Your task to perform on an android device: Empty the shopping cart on costco.com. Search for "alienware aurora" on costco.com, select the first entry, and add it to the cart. Image 0: 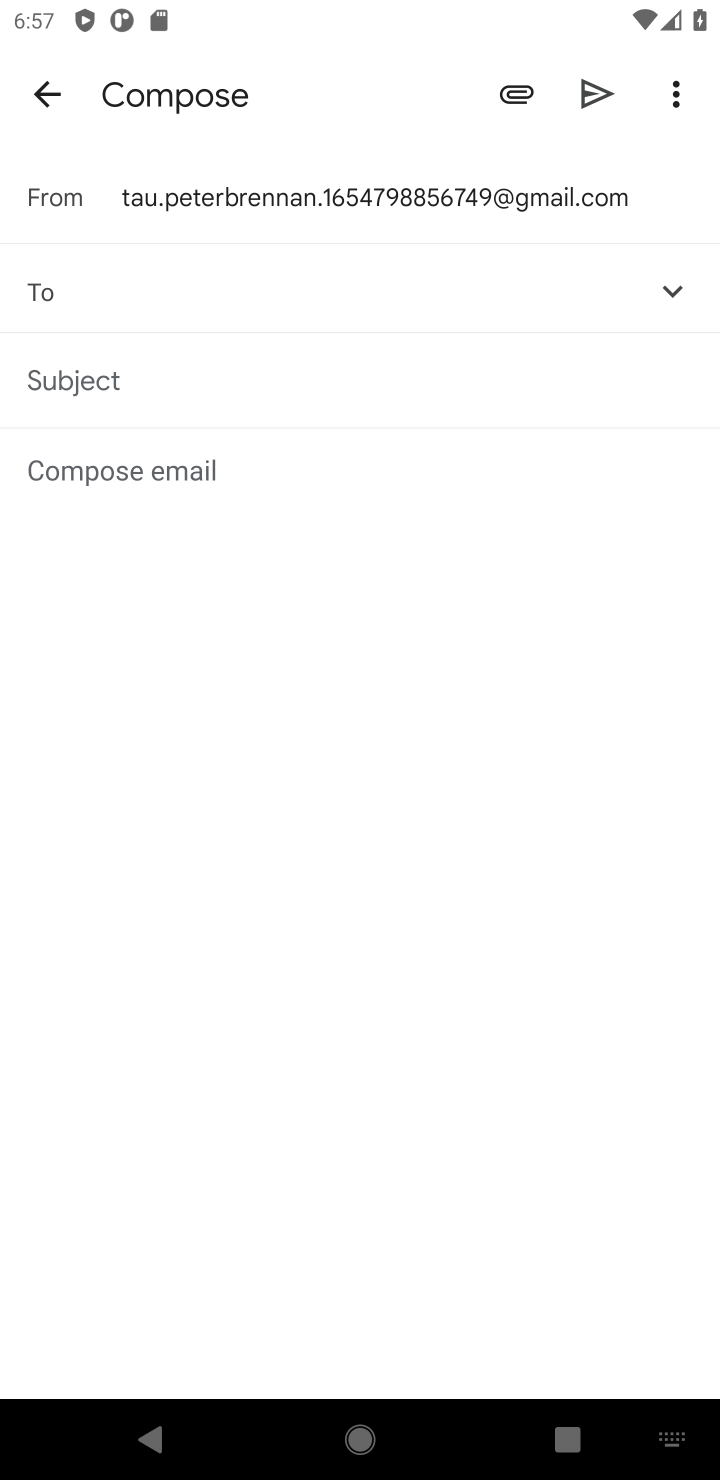
Step 0: press home button
Your task to perform on an android device: Empty the shopping cart on costco.com. Search for "alienware aurora" on costco.com, select the first entry, and add it to the cart. Image 1: 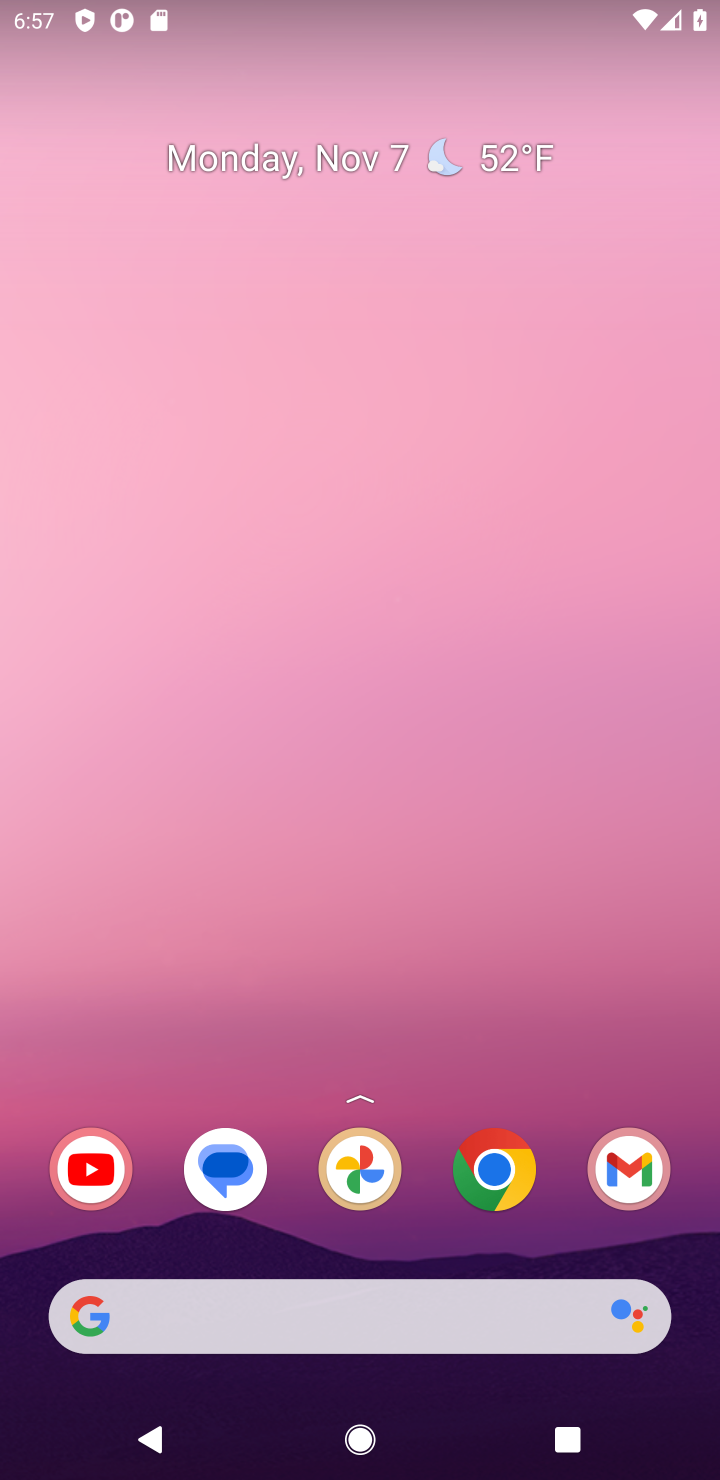
Step 1: click (488, 1154)
Your task to perform on an android device: Empty the shopping cart on costco.com. Search for "alienware aurora" on costco.com, select the first entry, and add it to the cart. Image 2: 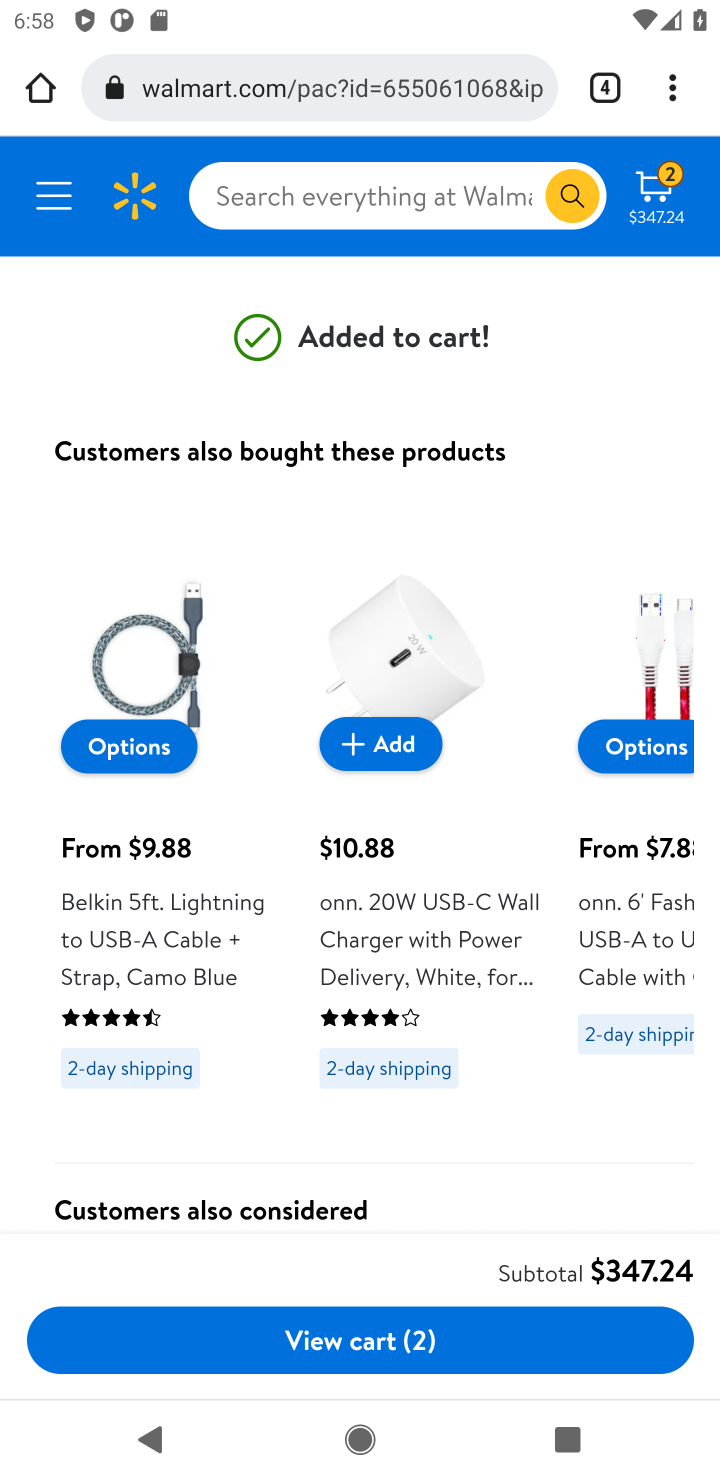
Step 2: click (611, 84)
Your task to perform on an android device: Empty the shopping cart on costco.com. Search for "alienware aurora" on costco.com, select the first entry, and add it to the cart. Image 3: 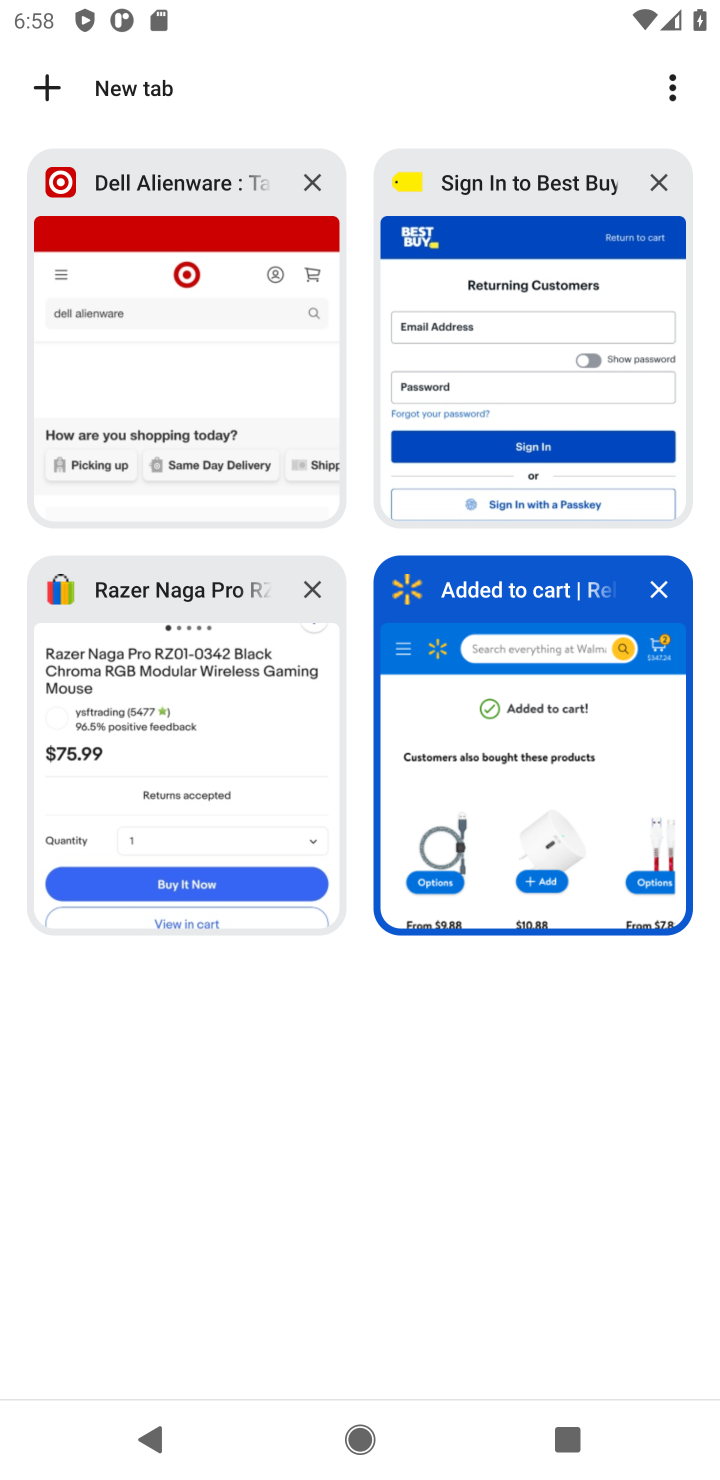
Step 3: click (42, 91)
Your task to perform on an android device: Empty the shopping cart on costco.com. Search for "alienware aurora" on costco.com, select the first entry, and add it to the cart. Image 4: 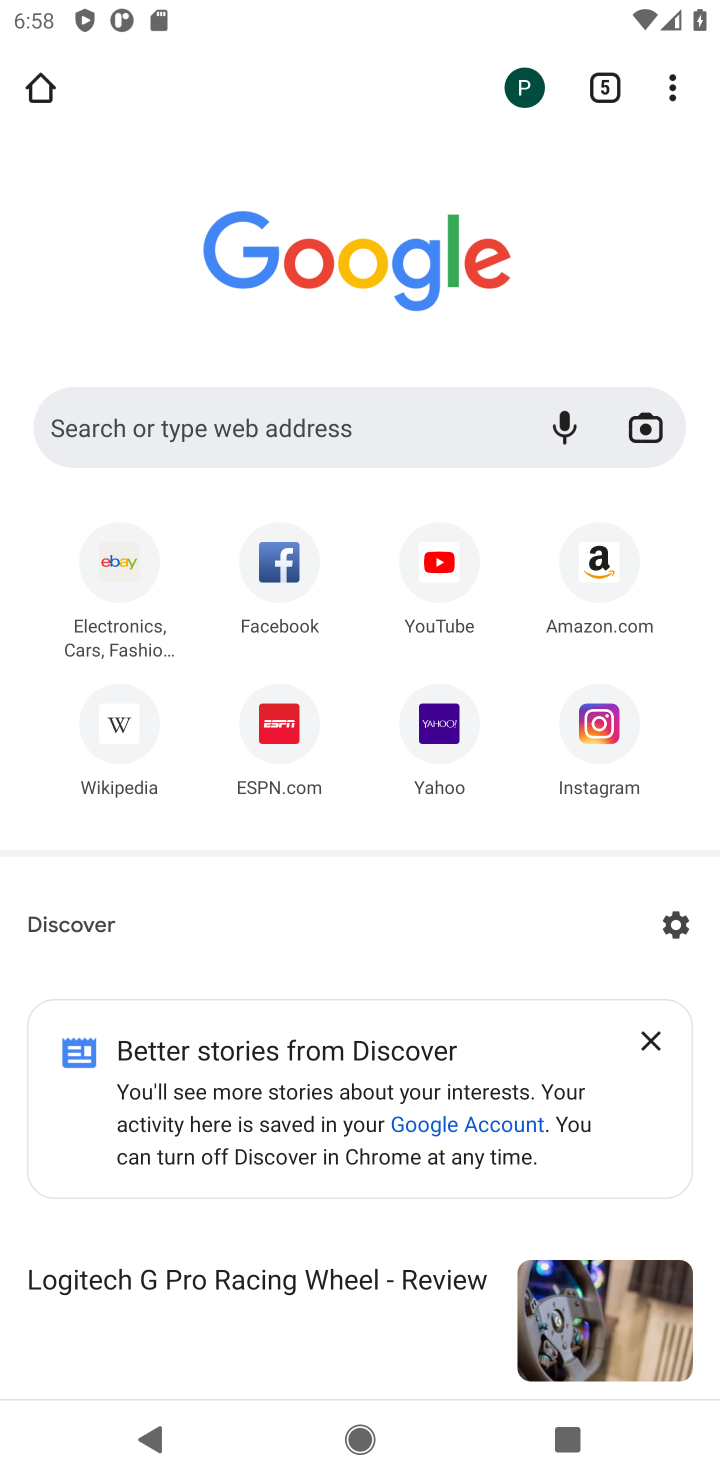
Step 4: click (321, 415)
Your task to perform on an android device: Empty the shopping cart on costco.com. Search for "alienware aurora" on costco.com, select the first entry, and add it to the cart. Image 5: 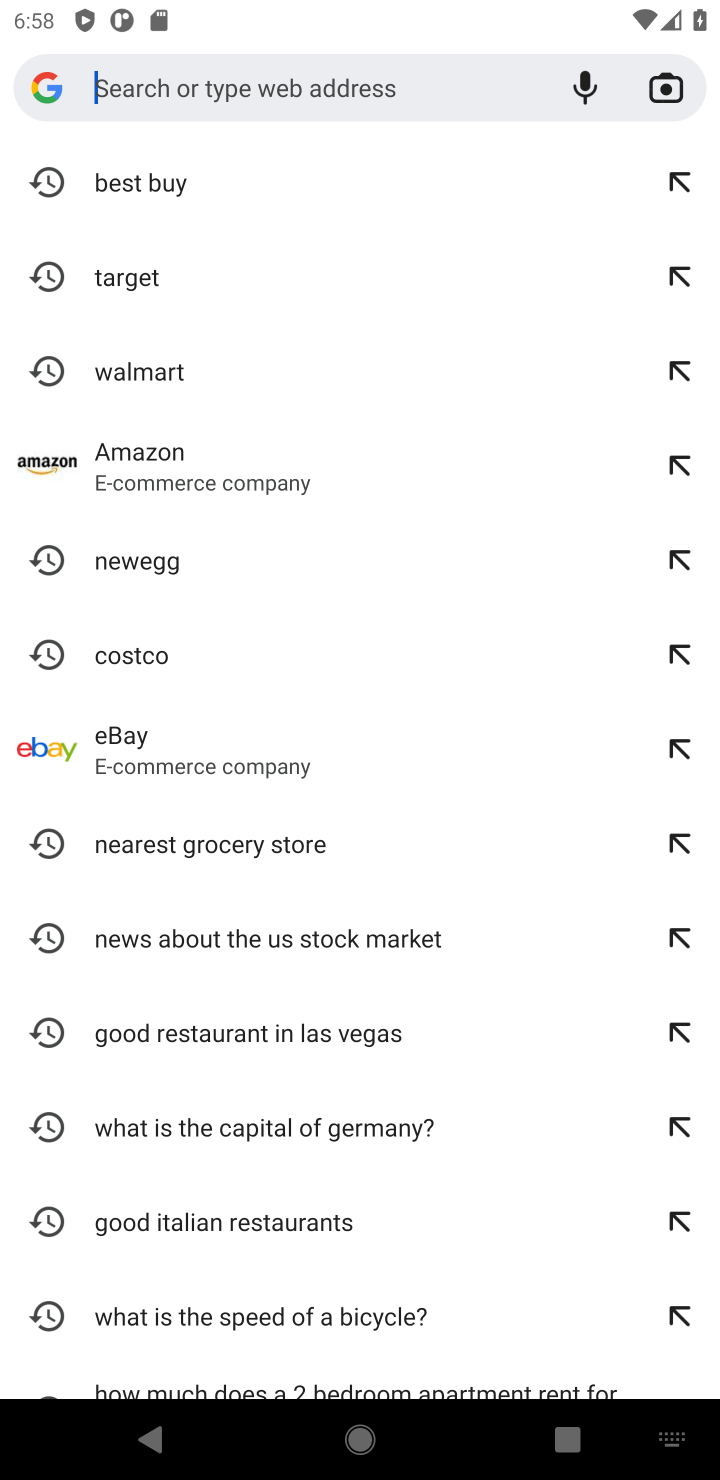
Step 5: click (129, 659)
Your task to perform on an android device: Empty the shopping cart on costco.com. Search for "alienware aurora" on costco.com, select the first entry, and add it to the cart. Image 6: 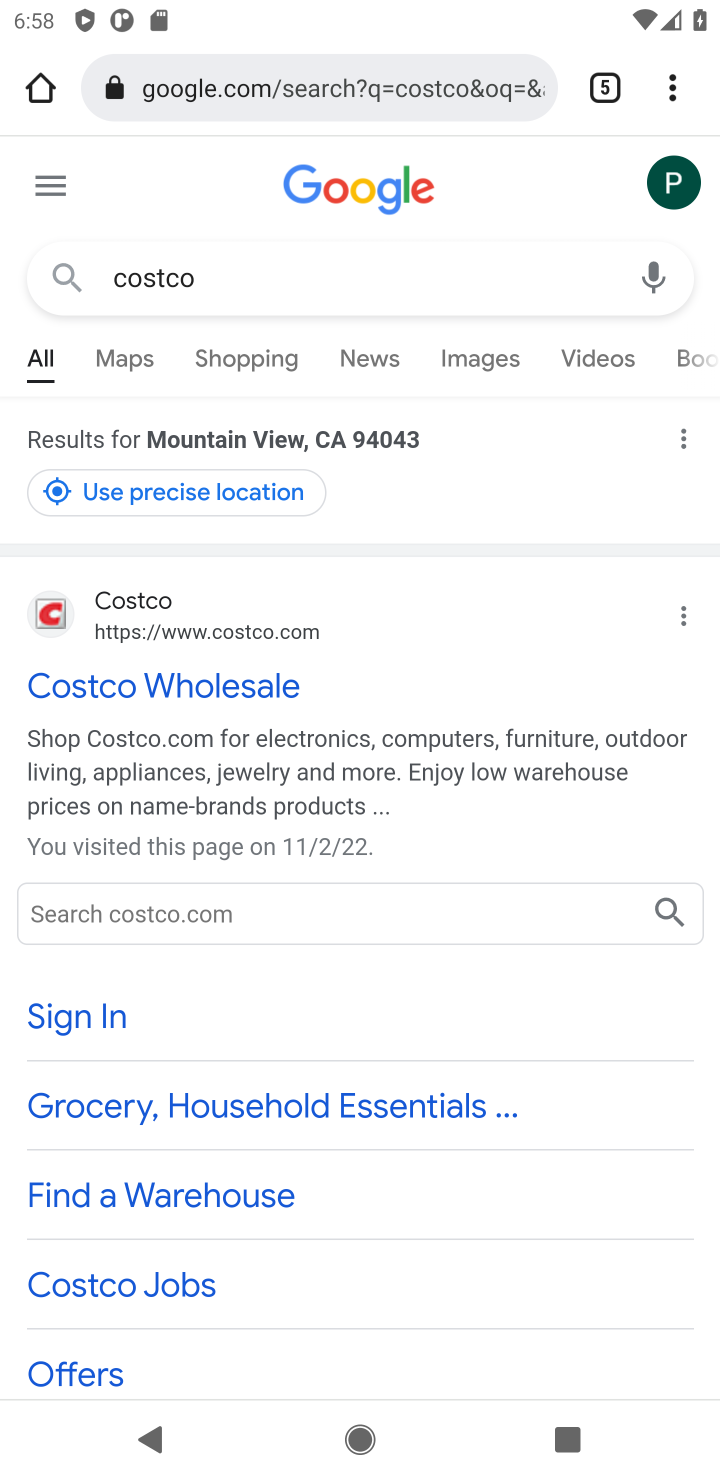
Step 6: click (144, 908)
Your task to perform on an android device: Empty the shopping cart on costco.com. Search for "alienware aurora" on costco.com, select the first entry, and add it to the cart. Image 7: 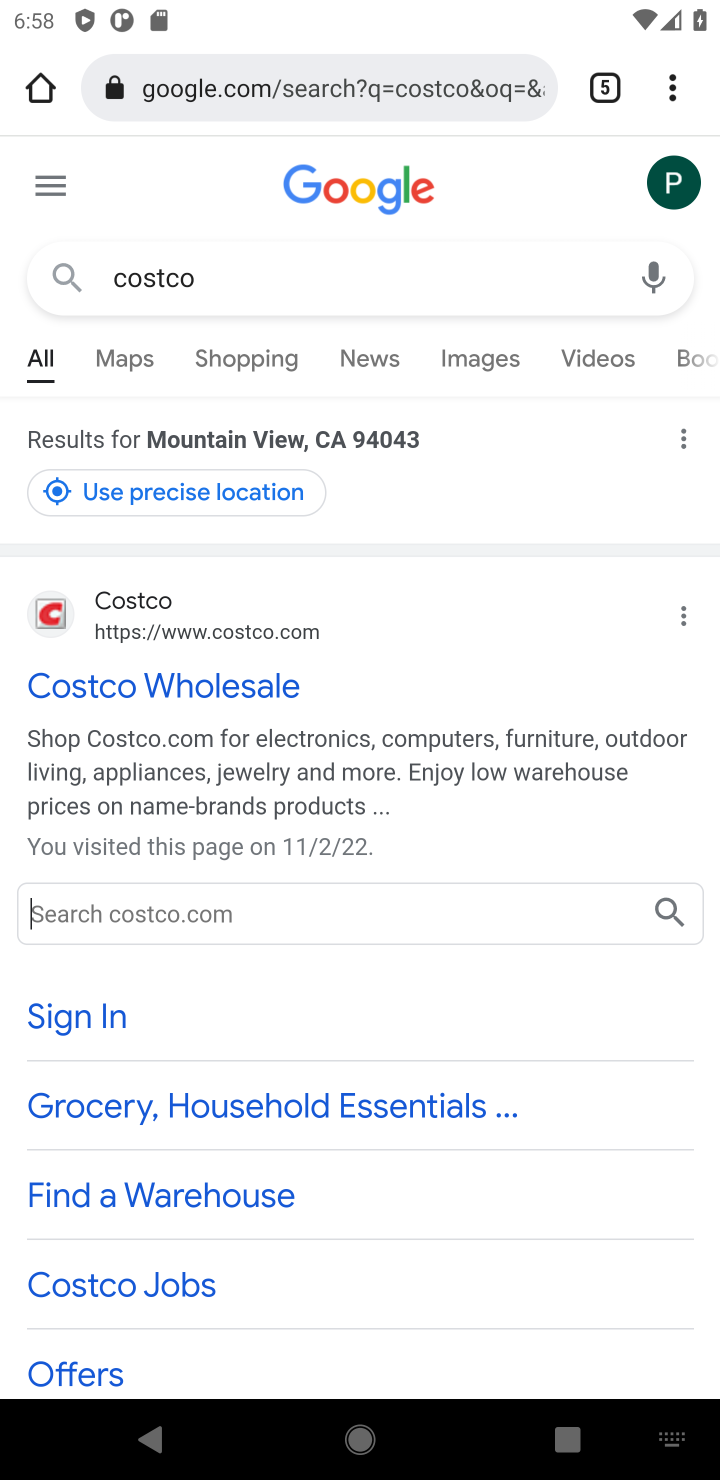
Step 7: type "alienware aurora"
Your task to perform on an android device: Empty the shopping cart on costco.com. Search for "alienware aurora" on costco.com, select the first entry, and add it to the cart. Image 8: 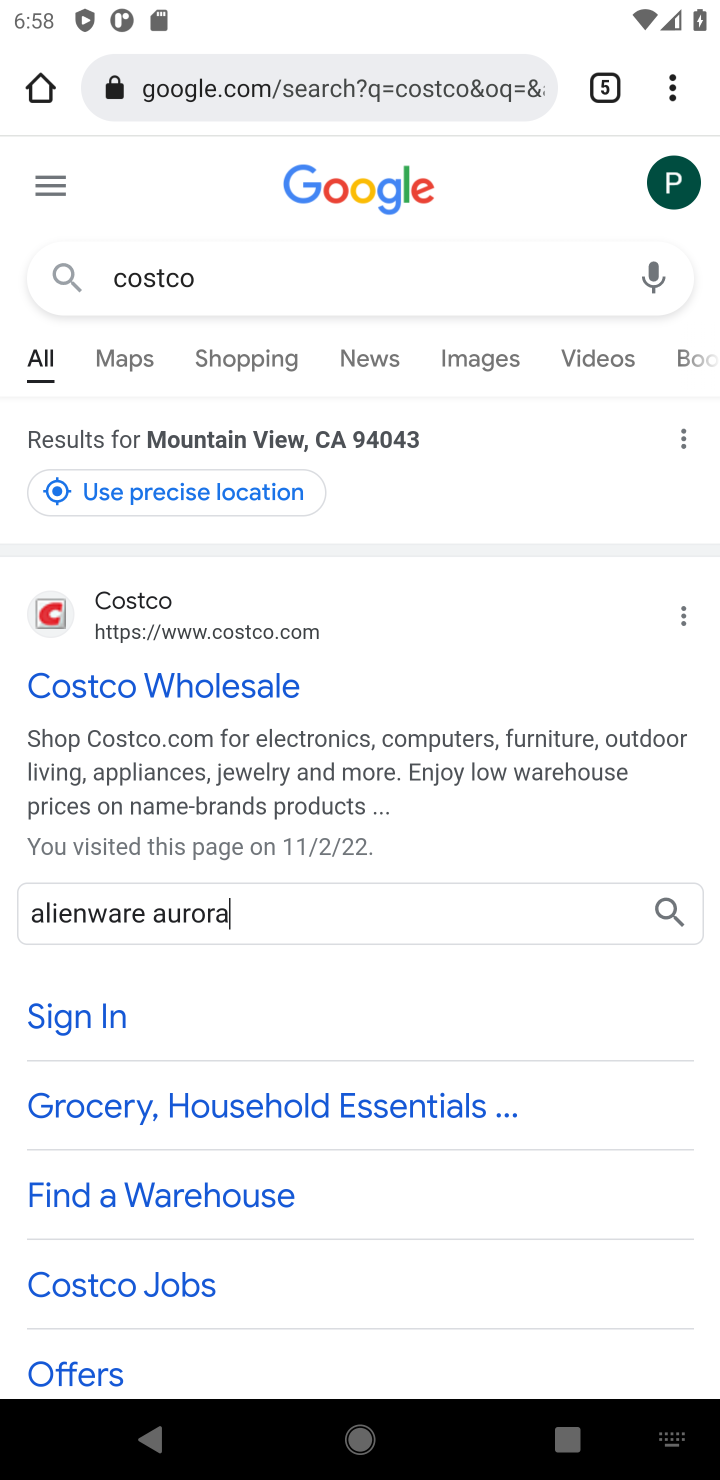
Step 8: click (654, 898)
Your task to perform on an android device: Empty the shopping cart on costco.com. Search for "alienware aurora" on costco.com, select the first entry, and add it to the cart. Image 9: 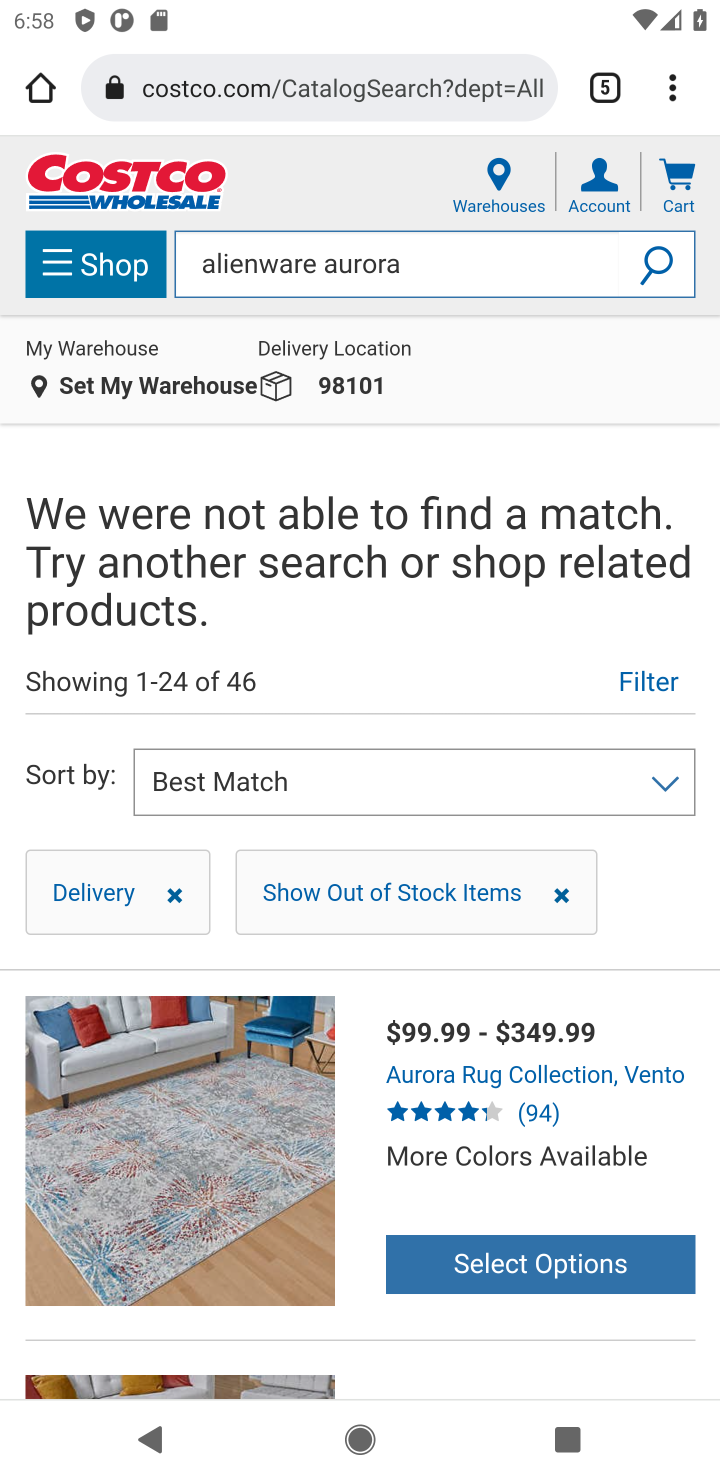
Step 9: click (611, 1117)
Your task to perform on an android device: Empty the shopping cart on costco.com. Search for "alienware aurora" on costco.com, select the first entry, and add it to the cart. Image 10: 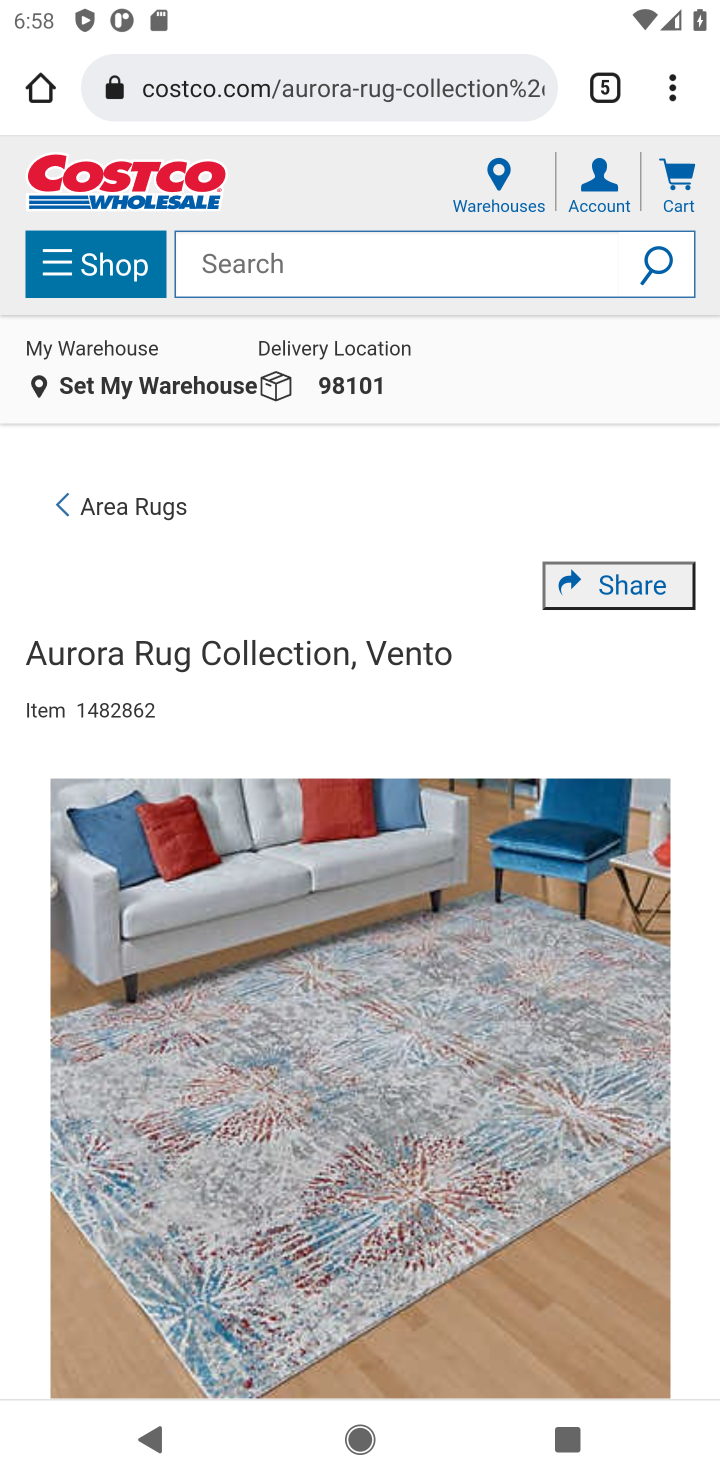
Step 10: drag from (581, 1229) to (611, 535)
Your task to perform on an android device: Empty the shopping cart on costco.com. Search for "alienware aurora" on costco.com, select the first entry, and add it to the cart. Image 11: 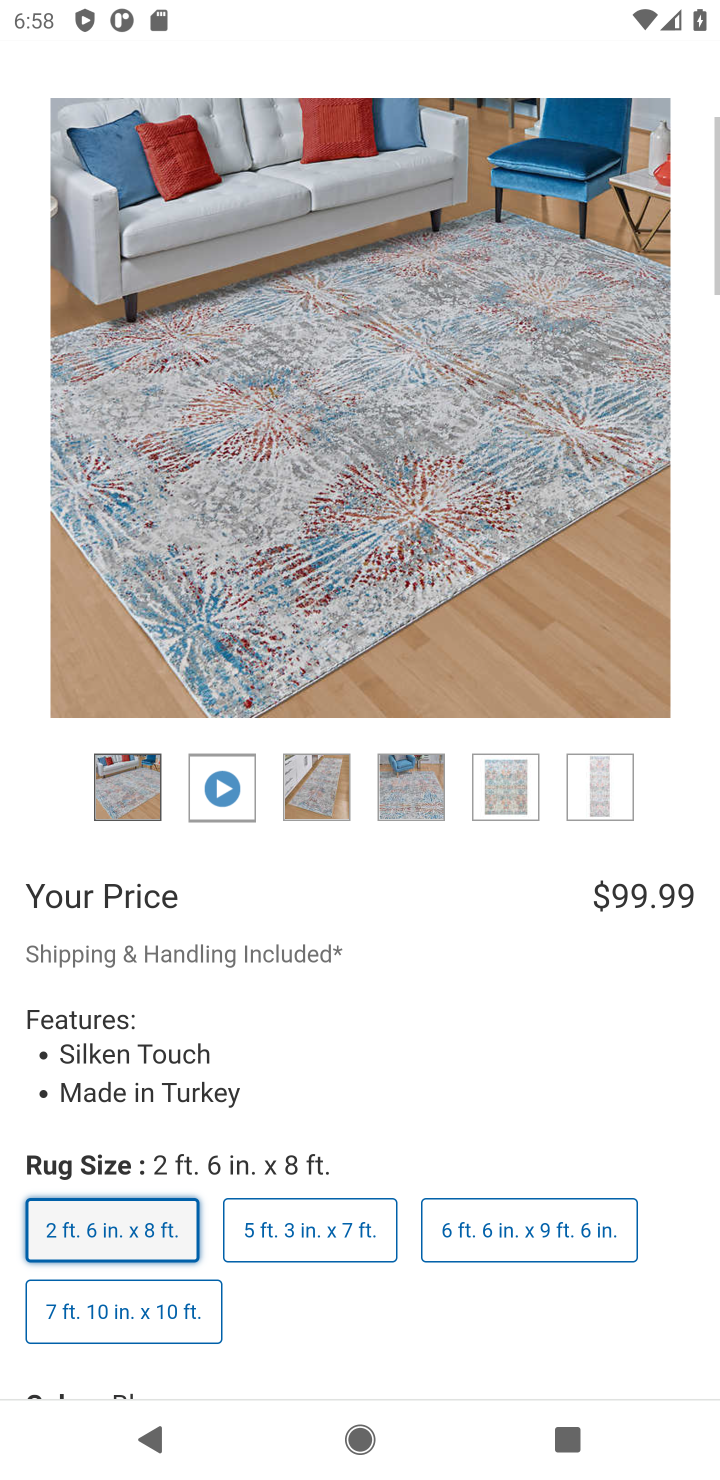
Step 11: drag from (286, 831) to (630, 346)
Your task to perform on an android device: Empty the shopping cart on costco.com. Search for "alienware aurora" on costco.com, select the first entry, and add it to the cart. Image 12: 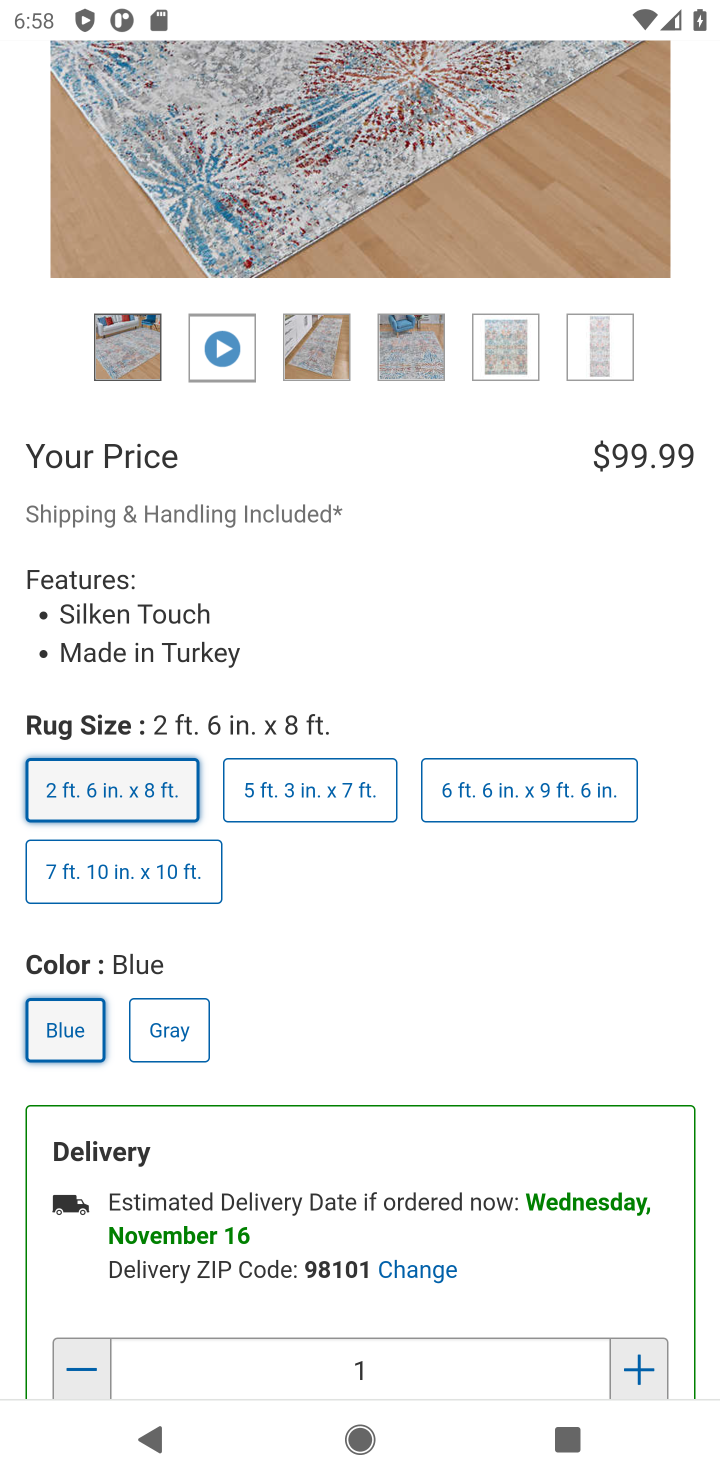
Step 12: click (331, 1221)
Your task to perform on an android device: Empty the shopping cart on costco.com. Search for "alienware aurora" on costco.com, select the first entry, and add it to the cart. Image 13: 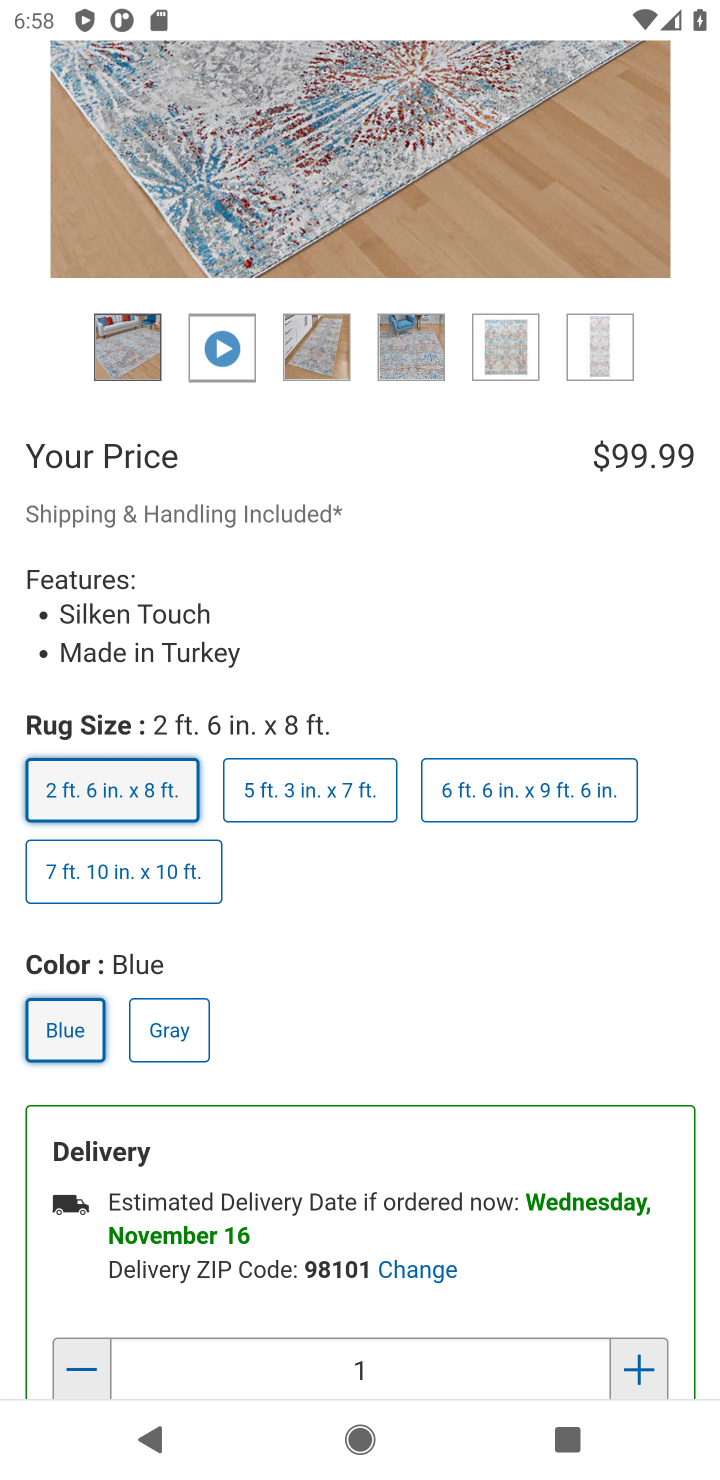
Step 13: task complete